Your task to perform on an android device: find which apps use the phone's location Image 0: 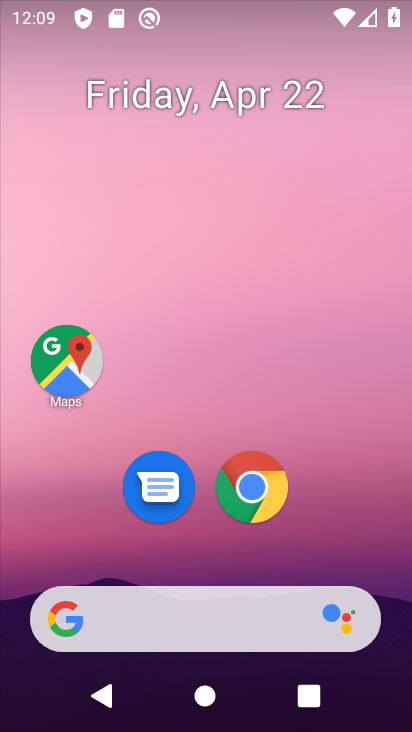
Step 0: drag from (183, 557) to (158, 1)
Your task to perform on an android device: find which apps use the phone's location Image 1: 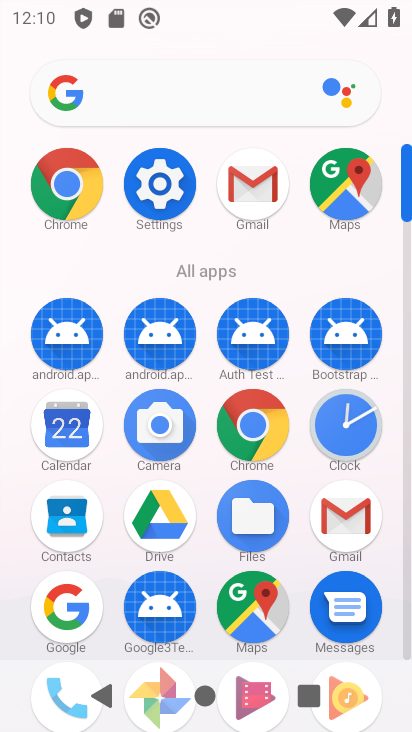
Step 1: click (185, 186)
Your task to perform on an android device: find which apps use the phone's location Image 2: 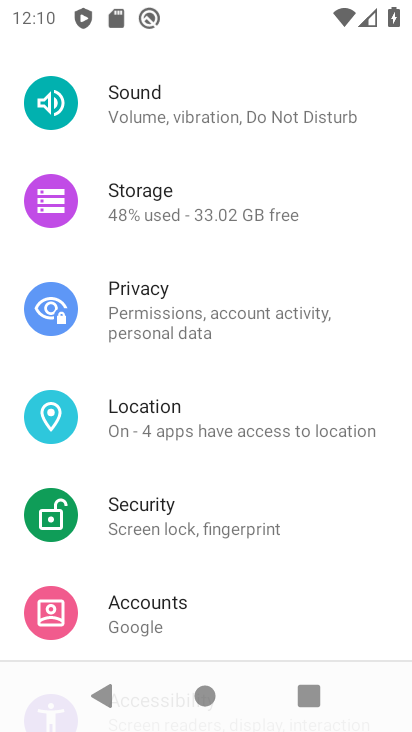
Step 2: click (206, 410)
Your task to perform on an android device: find which apps use the phone's location Image 3: 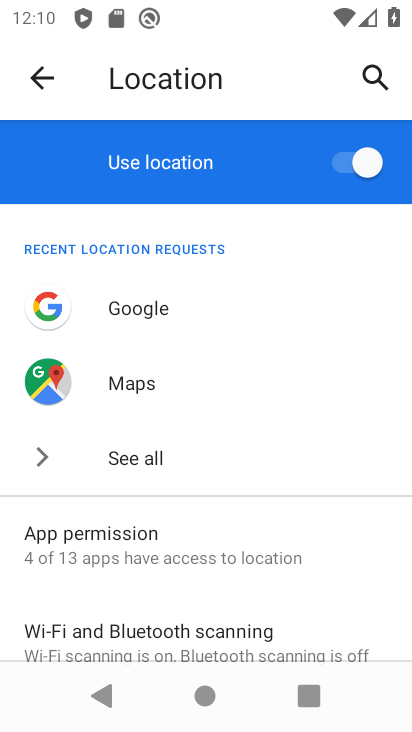
Step 3: drag from (145, 621) to (222, 117)
Your task to perform on an android device: find which apps use the phone's location Image 4: 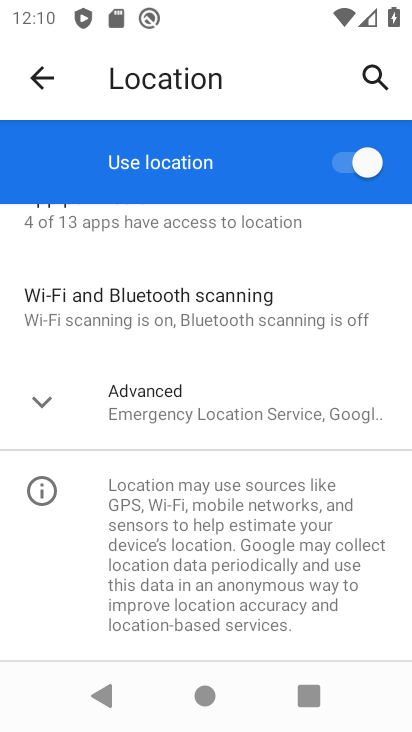
Step 4: drag from (234, 493) to (273, 94)
Your task to perform on an android device: find which apps use the phone's location Image 5: 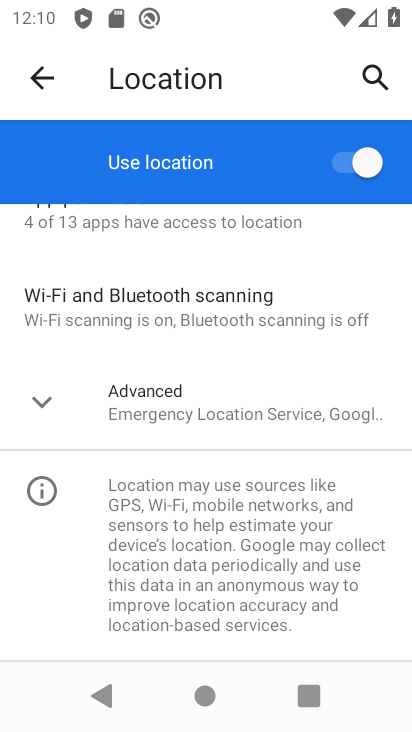
Step 5: drag from (212, 300) to (122, 676)
Your task to perform on an android device: find which apps use the phone's location Image 6: 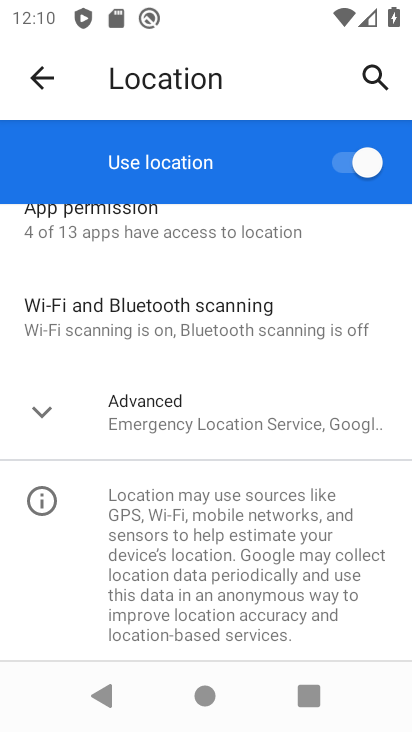
Step 6: drag from (214, 322) to (208, 663)
Your task to perform on an android device: find which apps use the phone's location Image 7: 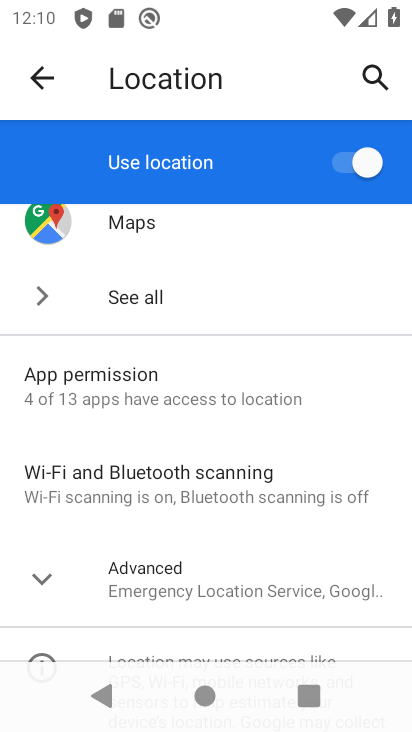
Step 7: click (194, 316)
Your task to perform on an android device: find which apps use the phone's location Image 8: 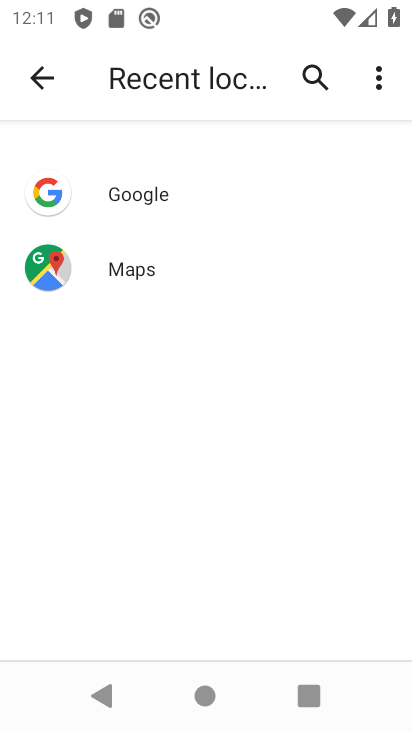
Step 8: task complete